Your task to perform on an android device: Go to CNN.com Image 0: 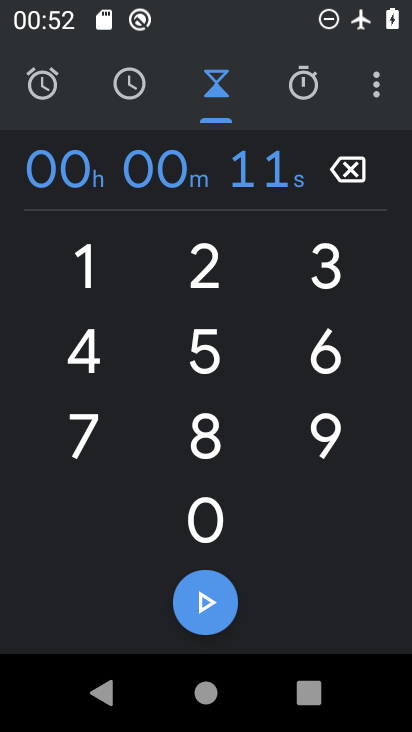
Step 0: press home button
Your task to perform on an android device: Go to CNN.com Image 1: 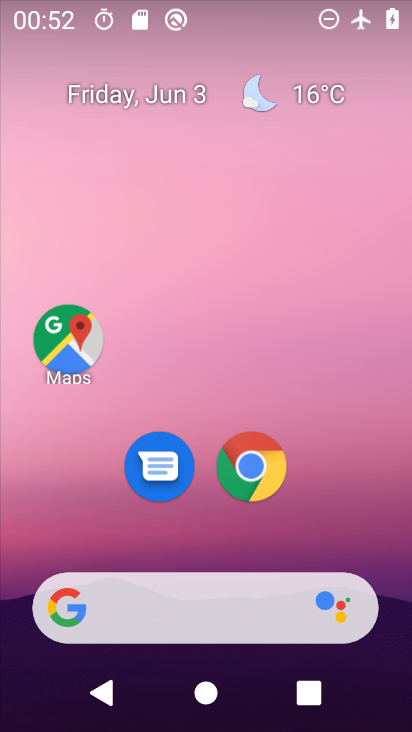
Step 1: click (244, 483)
Your task to perform on an android device: Go to CNN.com Image 2: 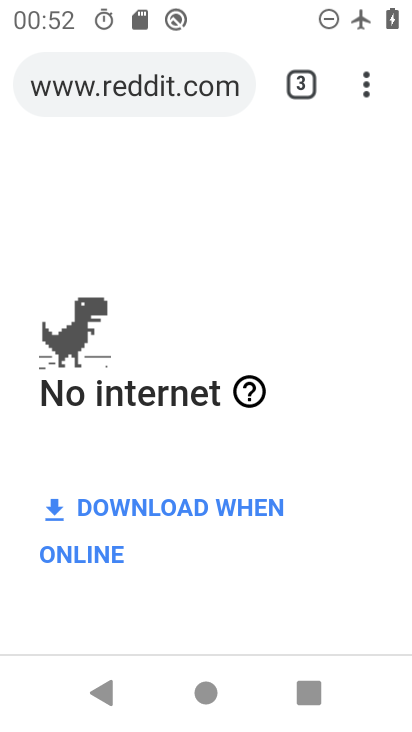
Step 2: click (306, 78)
Your task to perform on an android device: Go to CNN.com Image 3: 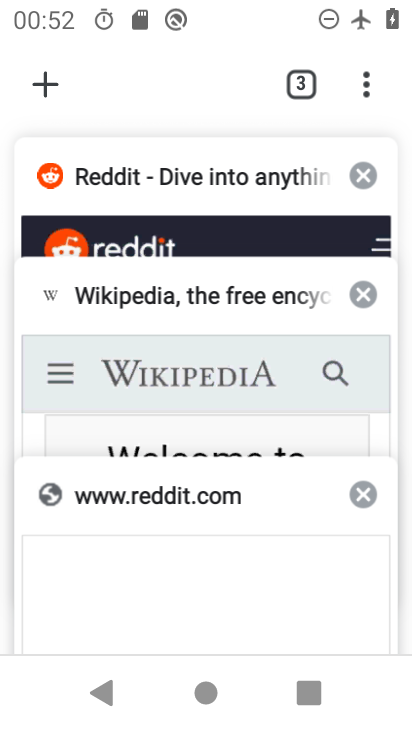
Step 3: click (47, 76)
Your task to perform on an android device: Go to CNN.com Image 4: 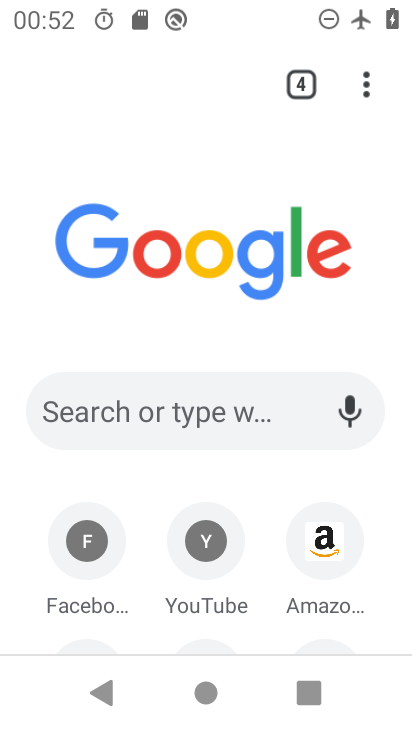
Step 4: click (166, 395)
Your task to perform on an android device: Go to CNN.com Image 5: 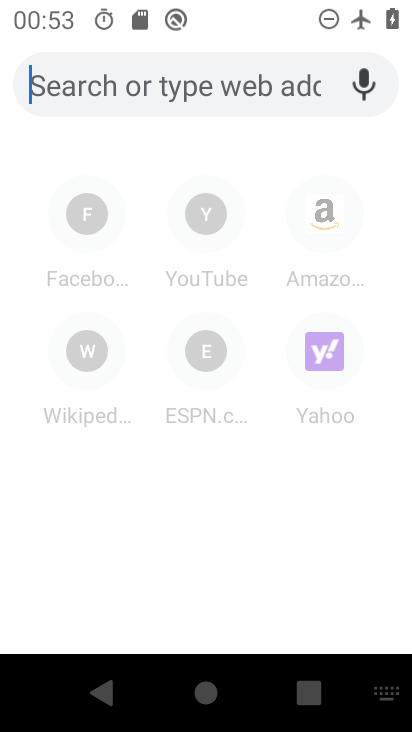
Step 5: type "CNN.com"
Your task to perform on an android device: Go to CNN.com Image 6: 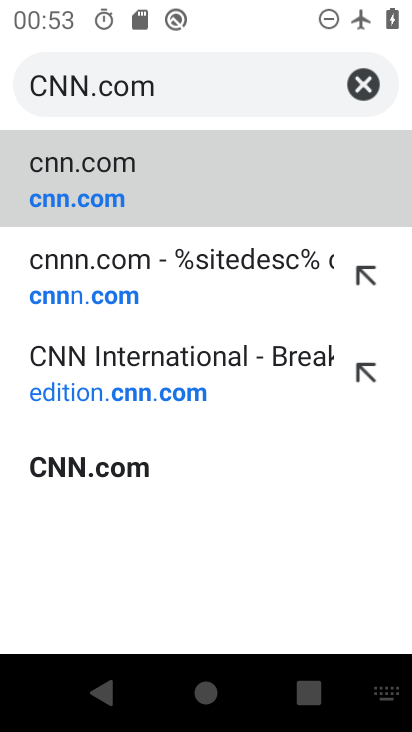
Step 6: click (323, 188)
Your task to perform on an android device: Go to CNN.com Image 7: 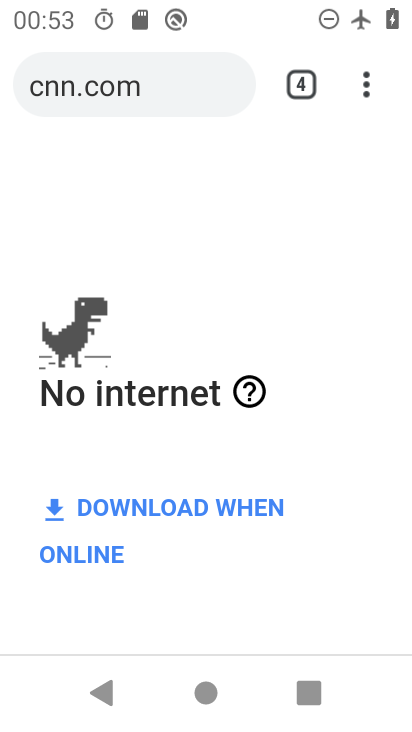
Step 7: task complete